Your task to perform on an android device: visit the assistant section in the google photos Image 0: 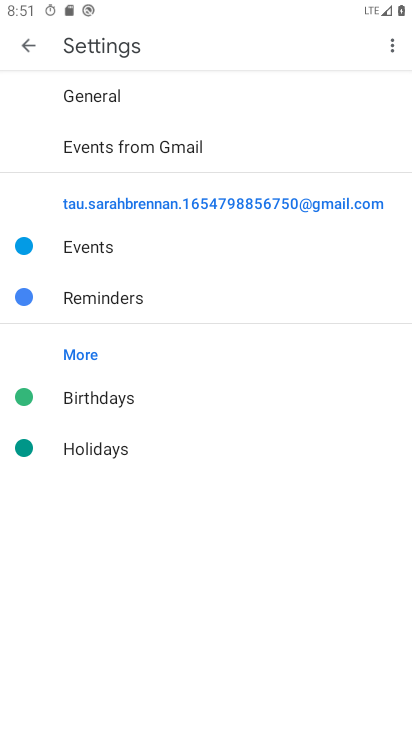
Step 0: press home button
Your task to perform on an android device: visit the assistant section in the google photos Image 1: 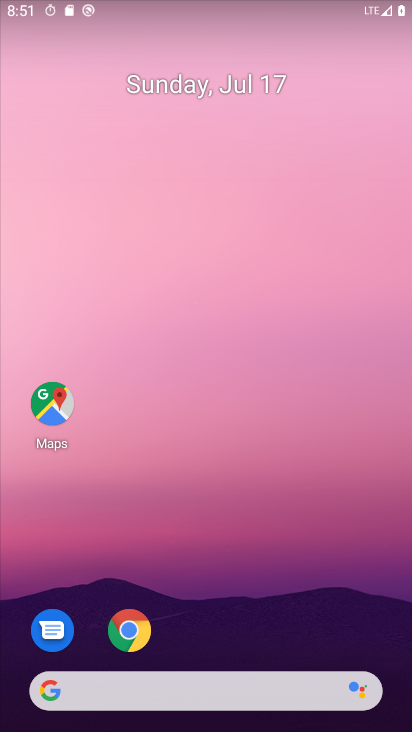
Step 1: drag from (207, 605) to (254, 14)
Your task to perform on an android device: visit the assistant section in the google photos Image 2: 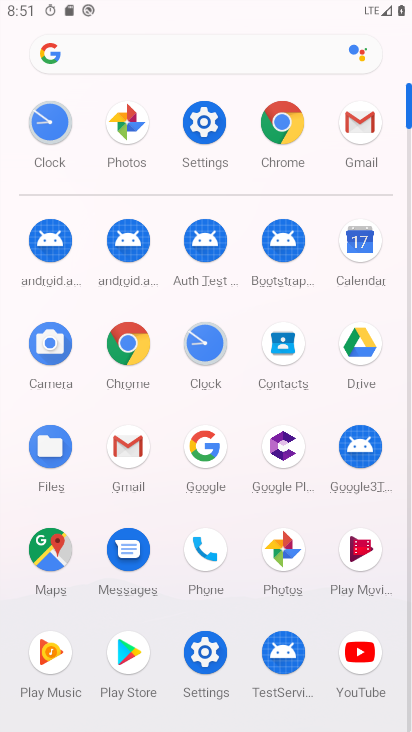
Step 2: click (282, 573)
Your task to perform on an android device: visit the assistant section in the google photos Image 3: 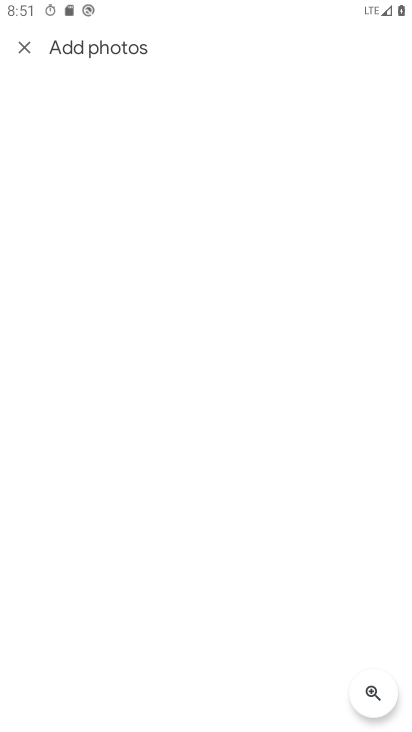
Step 3: click (26, 44)
Your task to perform on an android device: visit the assistant section in the google photos Image 4: 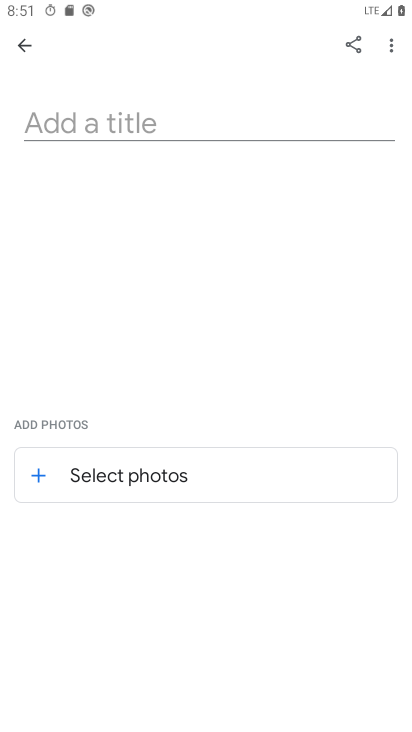
Step 4: click (19, 40)
Your task to perform on an android device: visit the assistant section in the google photos Image 5: 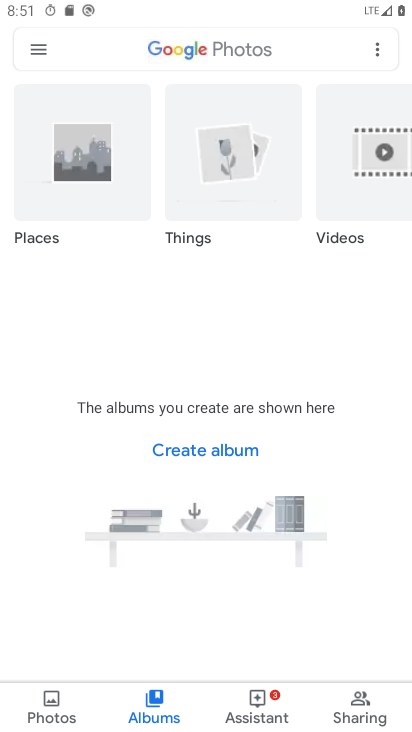
Step 5: click (265, 707)
Your task to perform on an android device: visit the assistant section in the google photos Image 6: 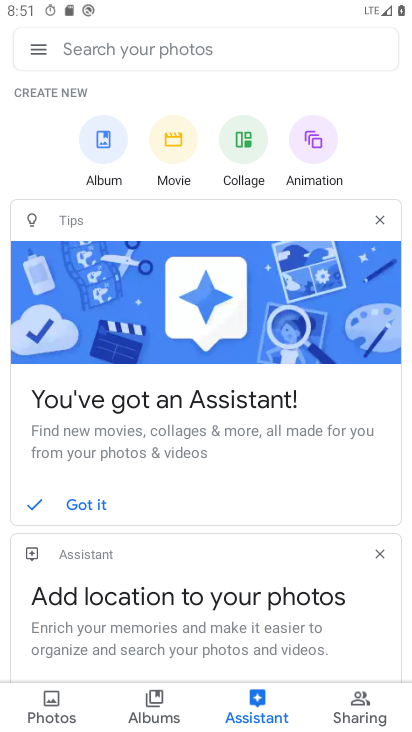
Step 6: task complete